Your task to perform on an android device: see tabs open on other devices in the chrome app Image 0: 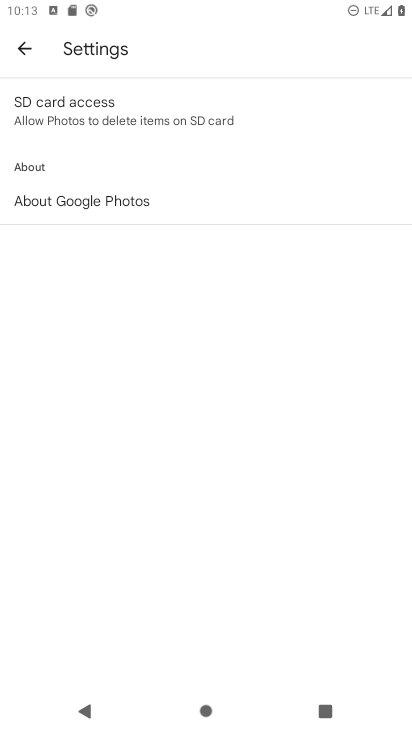
Step 0: press home button
Your task to perform on an android device: see tabs open on other devices in the chrome app Image 1: 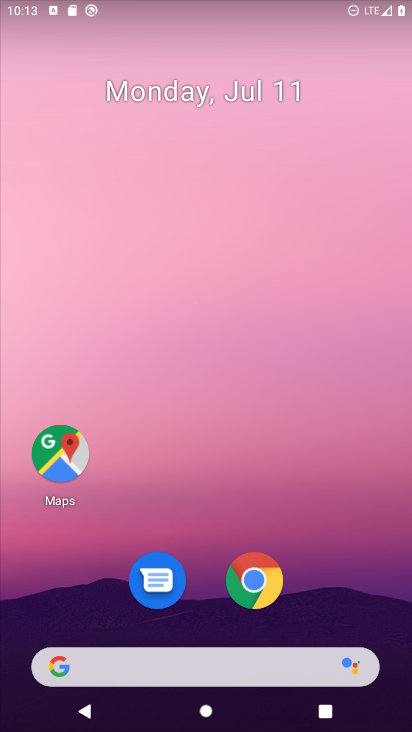
Step 1: click (269, 588)
Your task to perform on an android device: see tabs open on other devices in the chrome app Image 2: 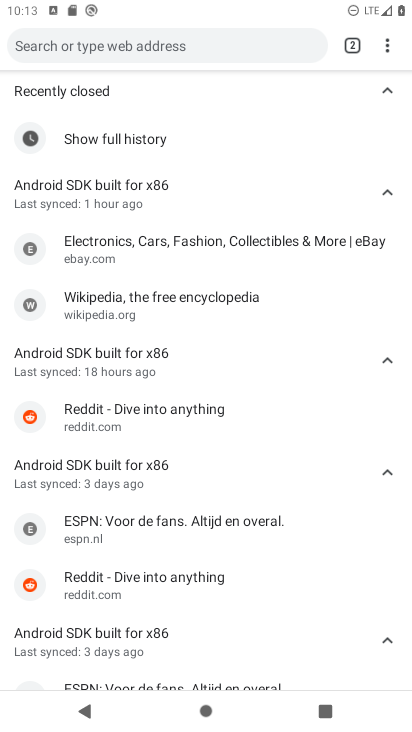
Step 2: click (387, 45)
Your task to perform on an android device: see tabs open on other devices in the chrome app Image 3: 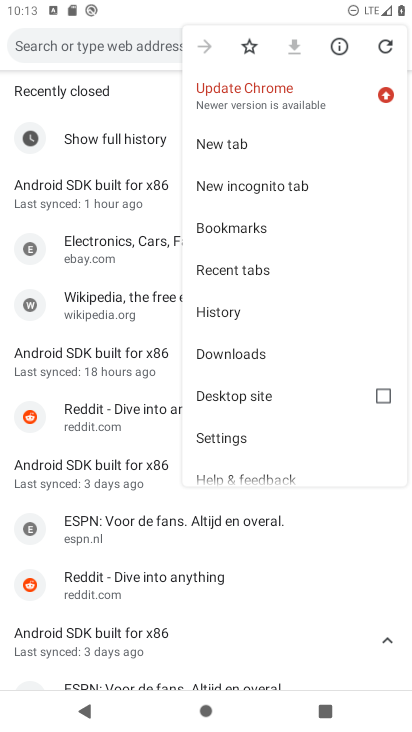
Step 3: click (258, 268)
Your task to perform on an android device: see tabs open on other devices in the chrome app Image 4: 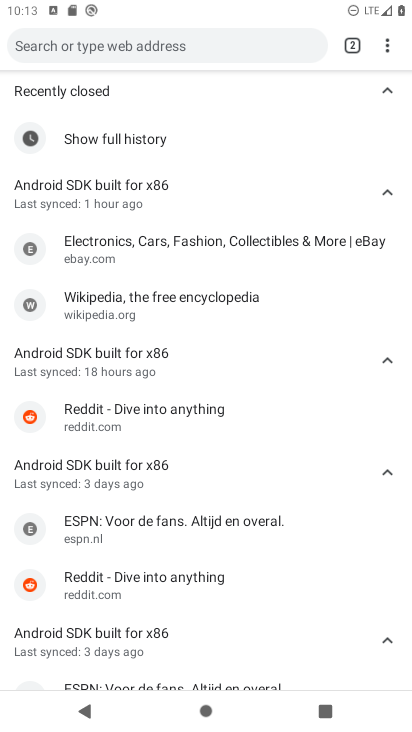
Step 4: task complete